Your task to perform on an android device: Show me the best 1080p monitor on Target.com Image 0: 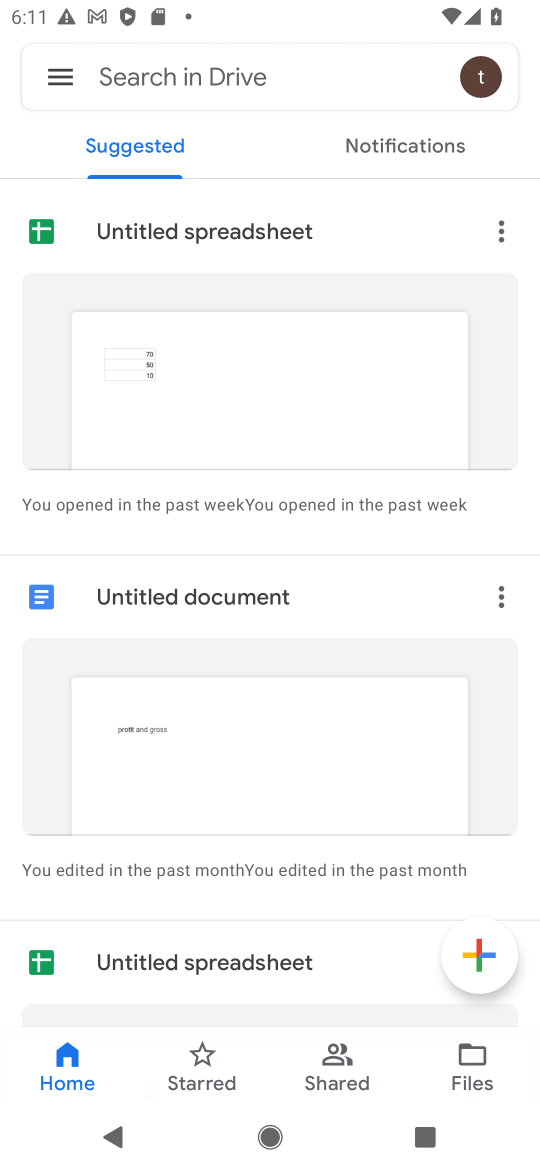
Step 0: press home button
Your task to perform on an android device: Show me the best 1080p monitor on Target.com Image 1: 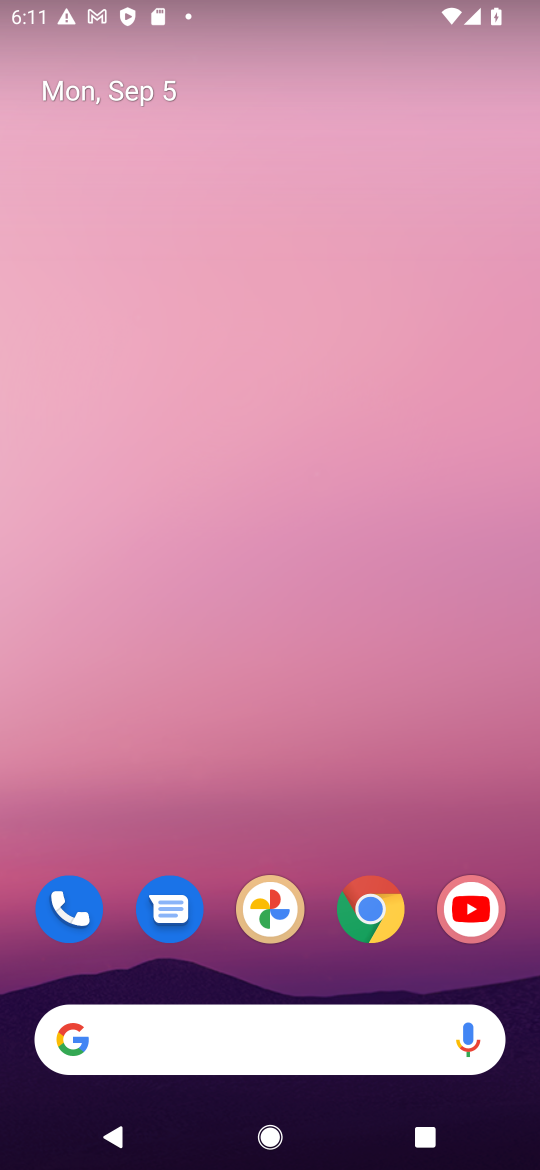
Step 1: drag from (313, 945) to (341, 125)
Your task to perform on an android device: Show me the best 1080p monitor on Target.com Image 2: 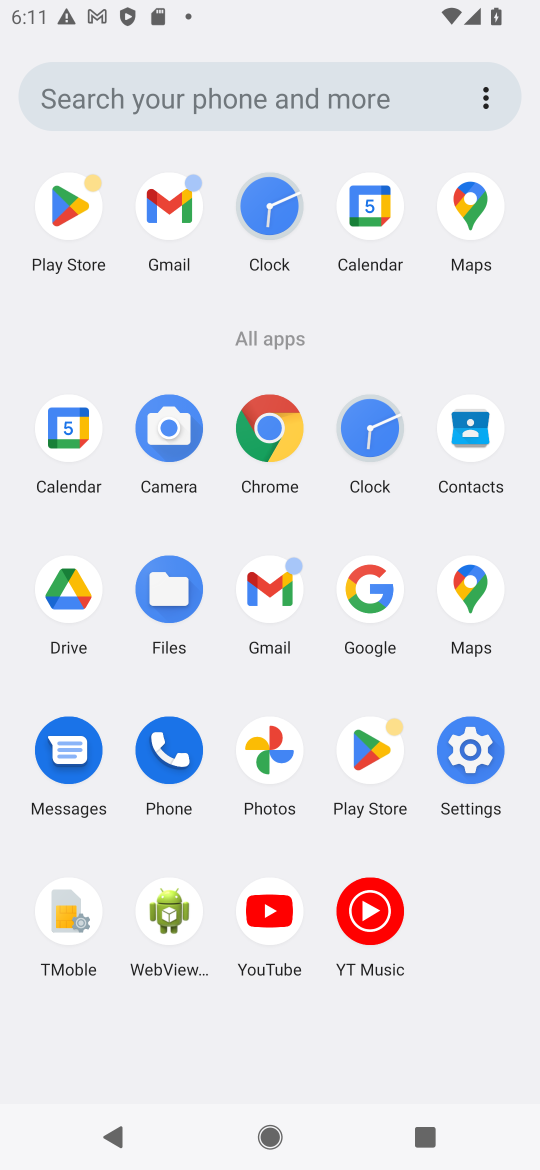
Step 2: click (366, 587)
Your task to perform on an android device: Show me the best 1080p monitor on Target.com Image 3: 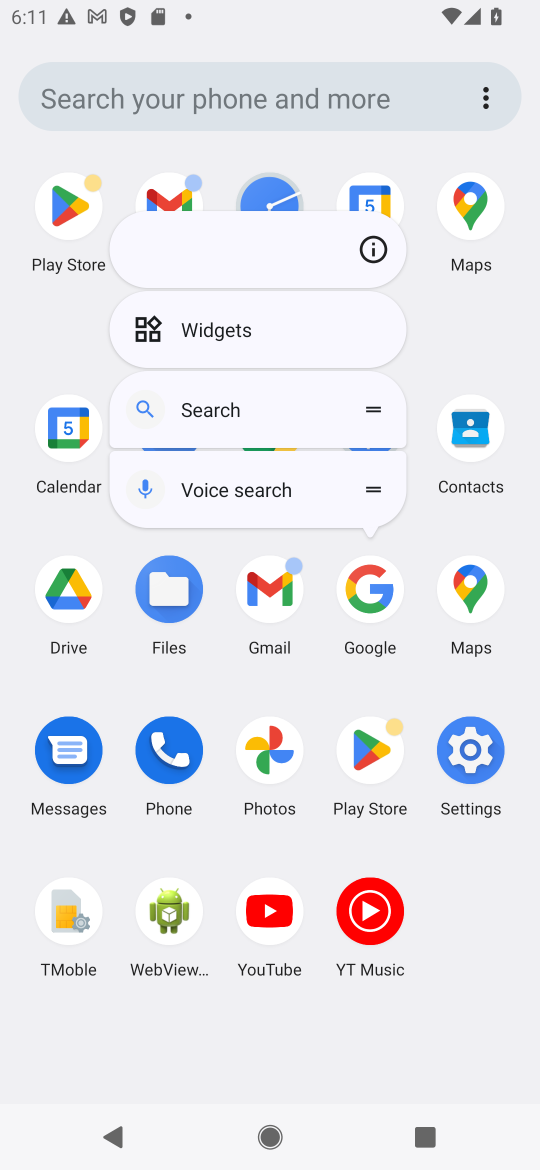
Step 3: click (376, 600)
Your task to perform on an android device: Show me the best 1080p monitor on Target.com Image 4: 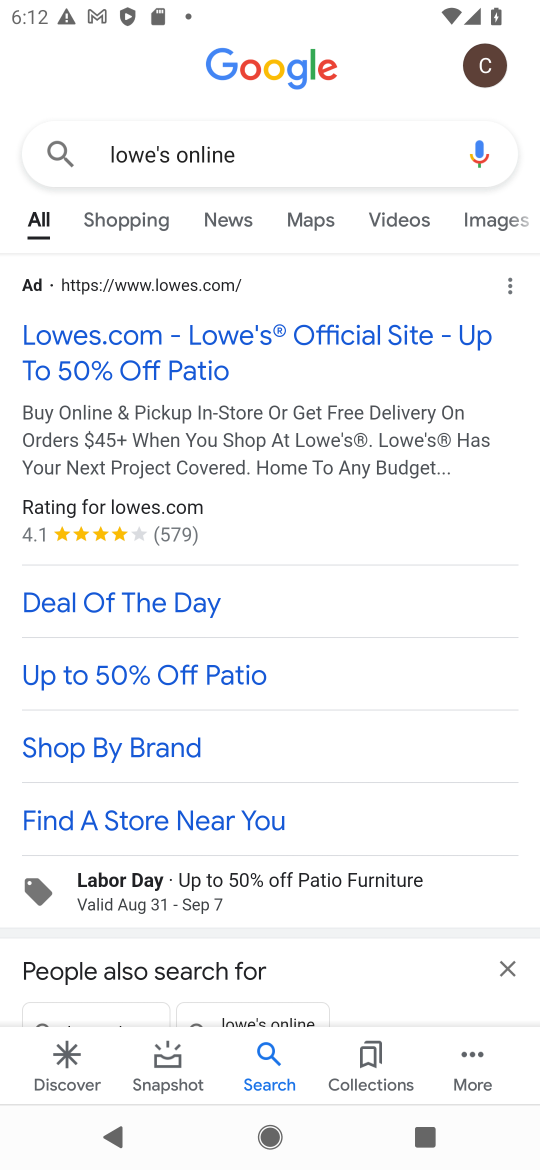
Step 4: click (227, 156)
Your task to perform on an android device: Show me the best 1080p monitor on Target.com Image 5: 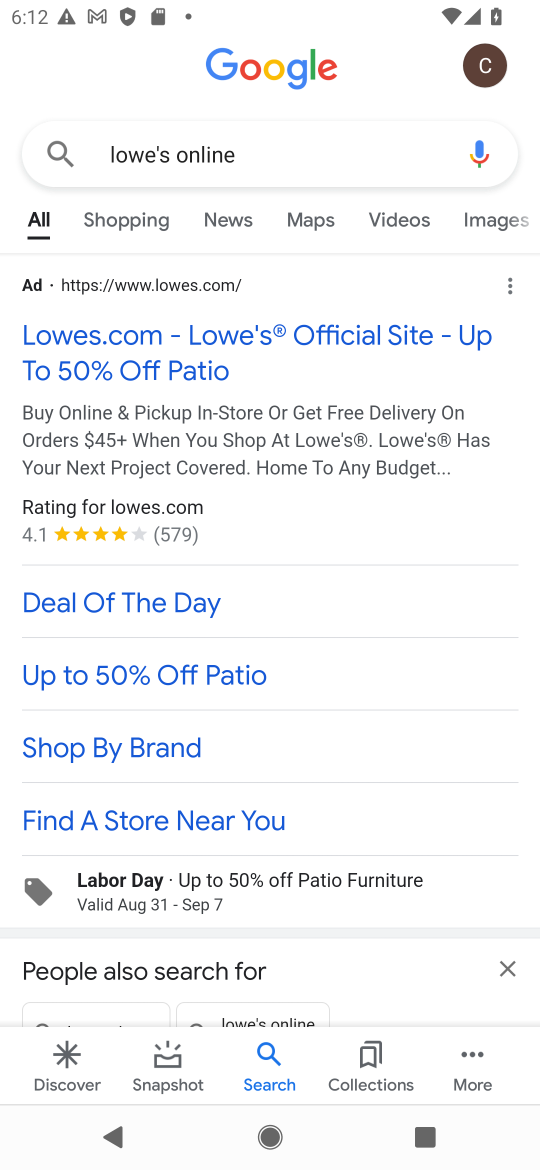
Step 5: click (193, 155)
Your task to perform on an android device: Show me the best 1080p monitor on Target.com Image 6: 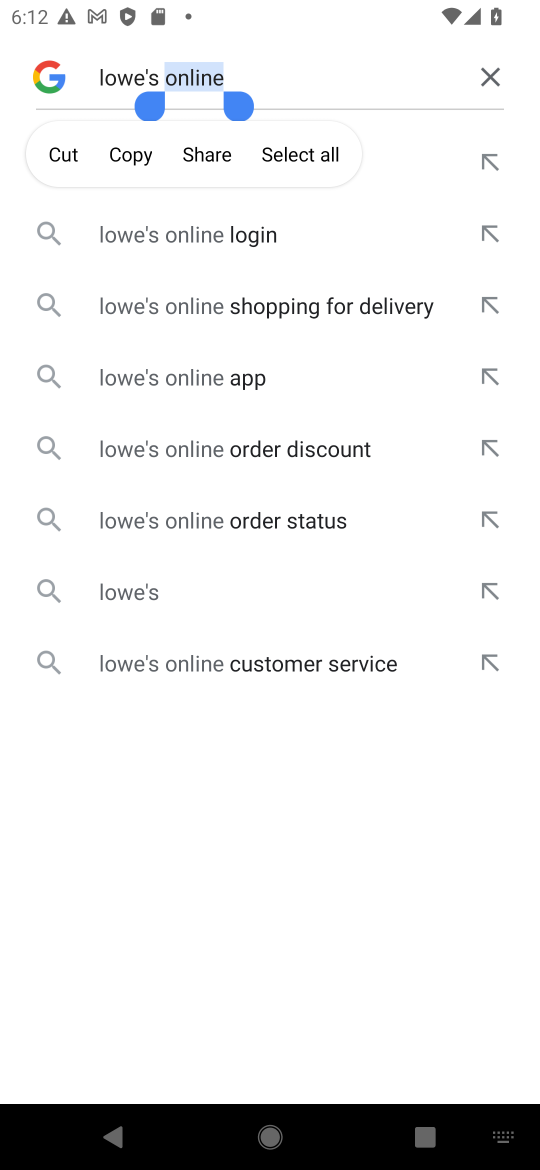
Step 6: click (130, 152)
Your task to perform on an android device: Show me the best 1080p monitor on Target.com Image 7: 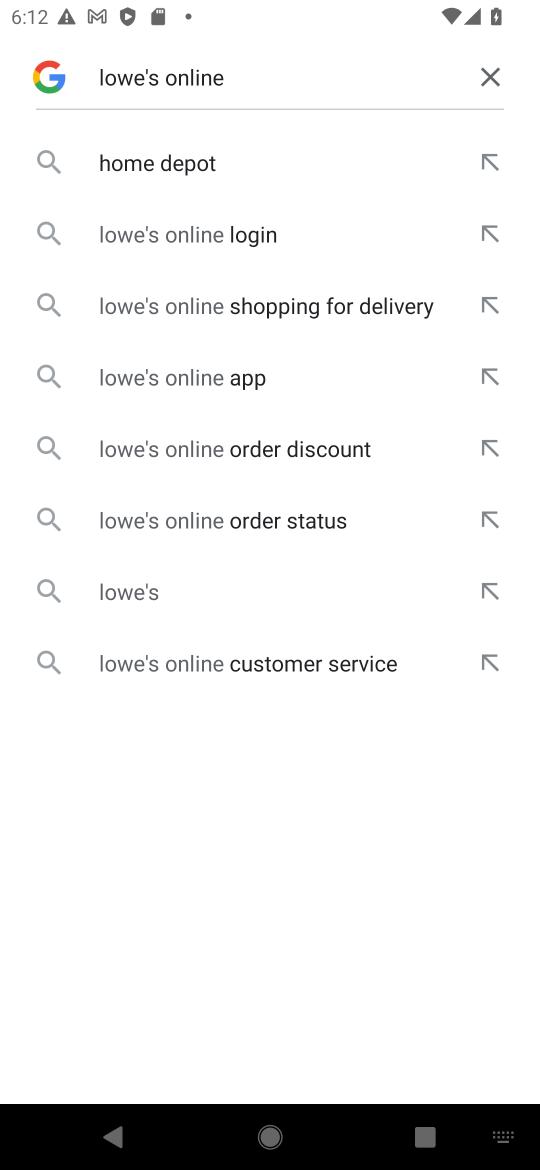
Step 7: type "Target.com"
Your task to perform on an android device: Show me the best 1080p monitor on Target.com Image 8: 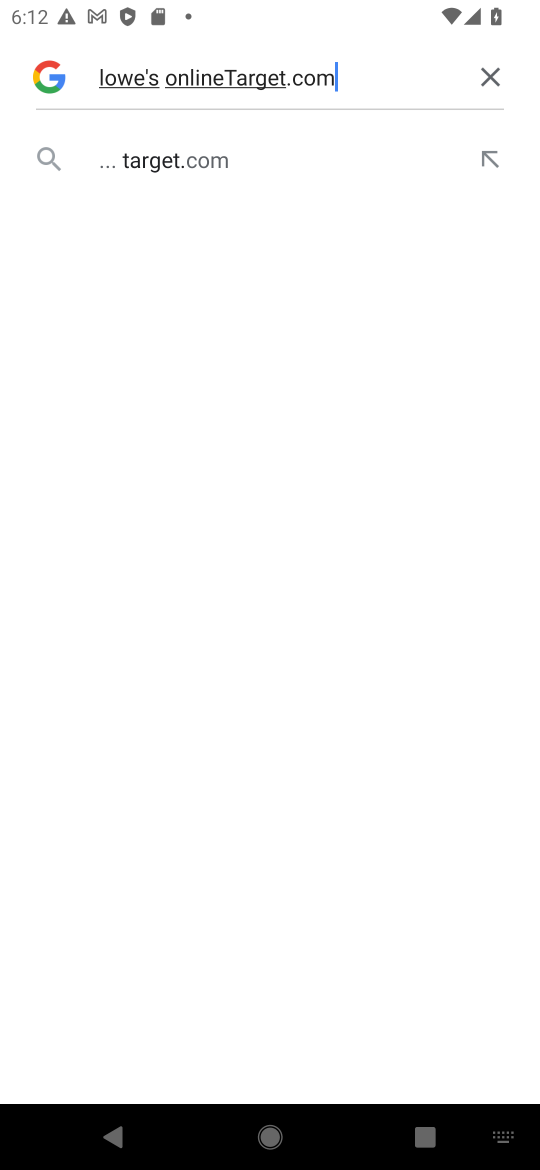
Step 8: click (153, 169)
Your task to perform on an android device: Show me the best 1080p monitor on Target.com Image 9: 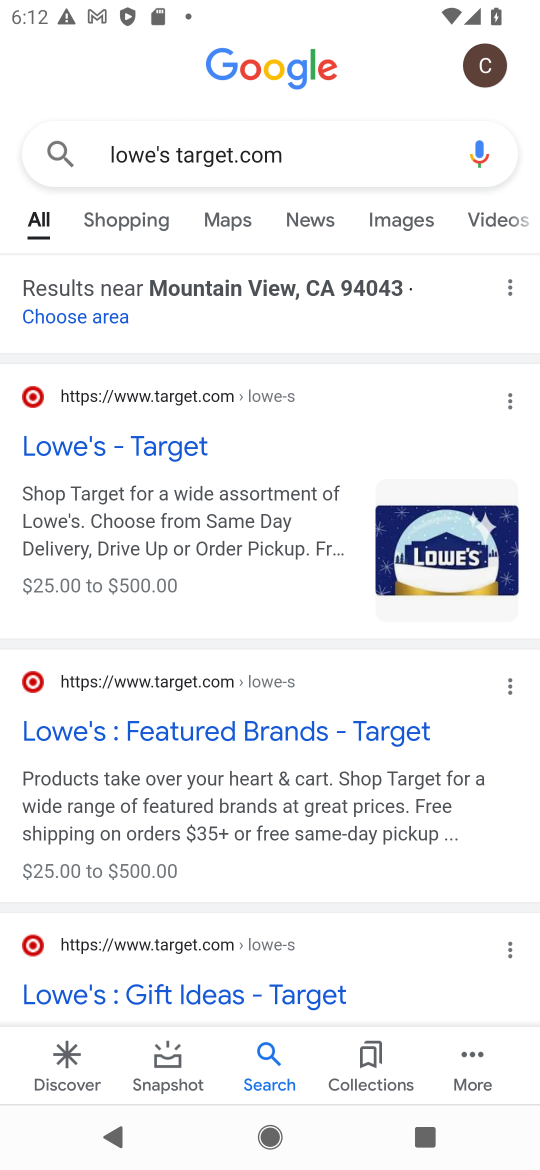
Step 9: click (320, 161)
Your task to perform on an android device: Show me the best 1080p monitor on Target.com Image 10: 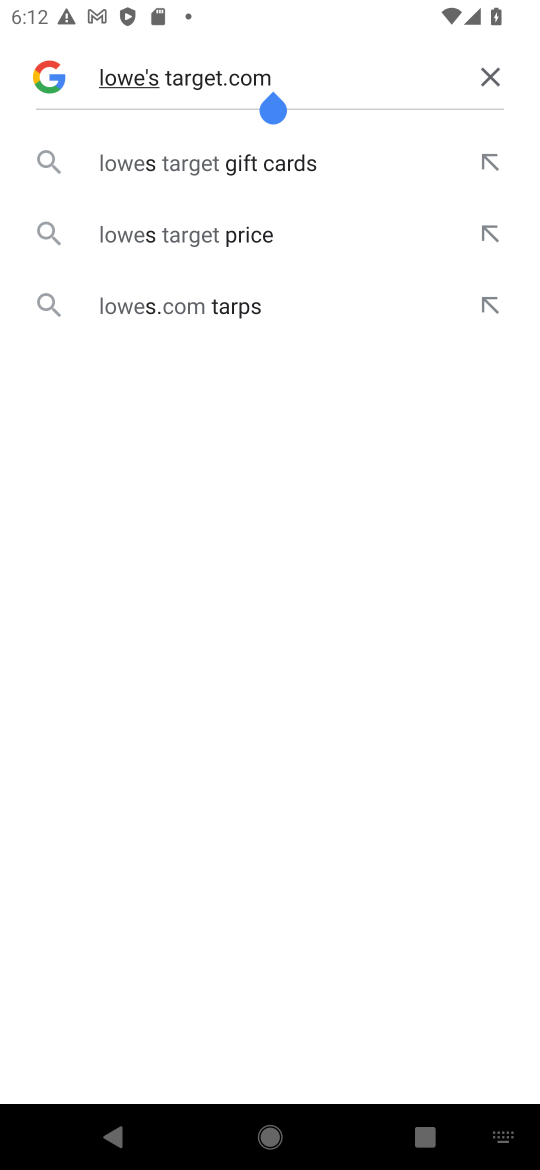
Step 10: click (486, 81)
Your task to perform on an android device: Show me the best 1080p monitor on Target.com Image 11: 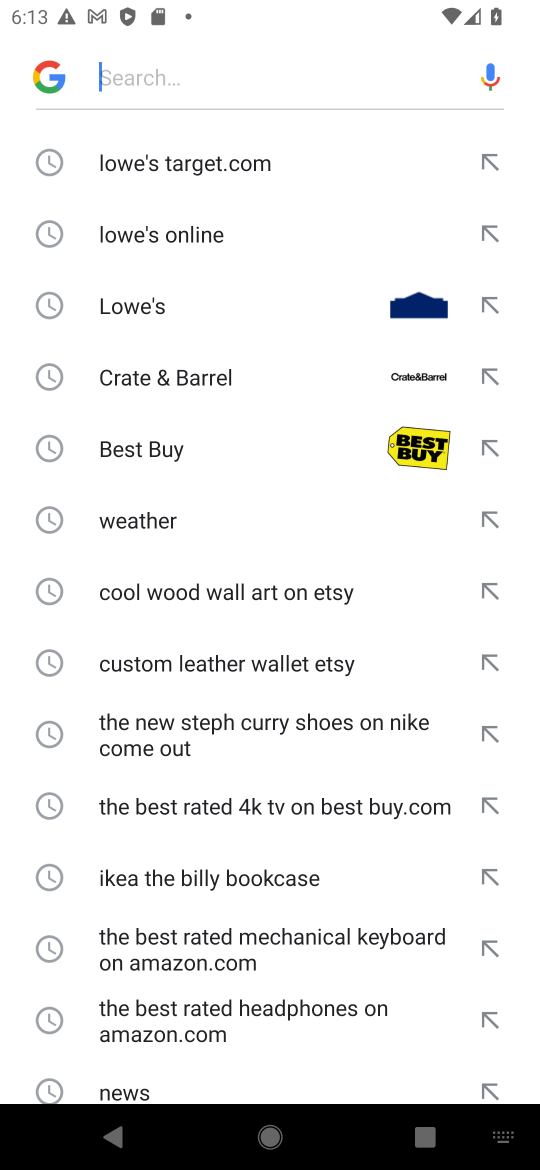
Step 11: type "Target.com"
Your task to perform on an android device: Show me the best 1080p monitor on Target.com Image 12: 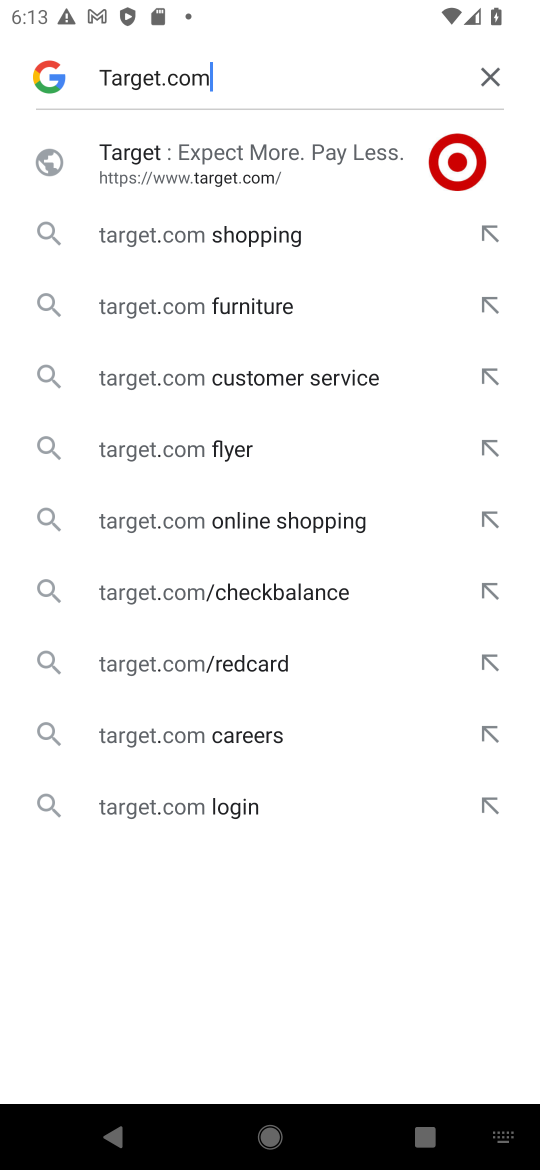
Step 12: click (204, 165)
Your task to perform on an android device: Show me the best 1080p monitor on Target.com Image 13: 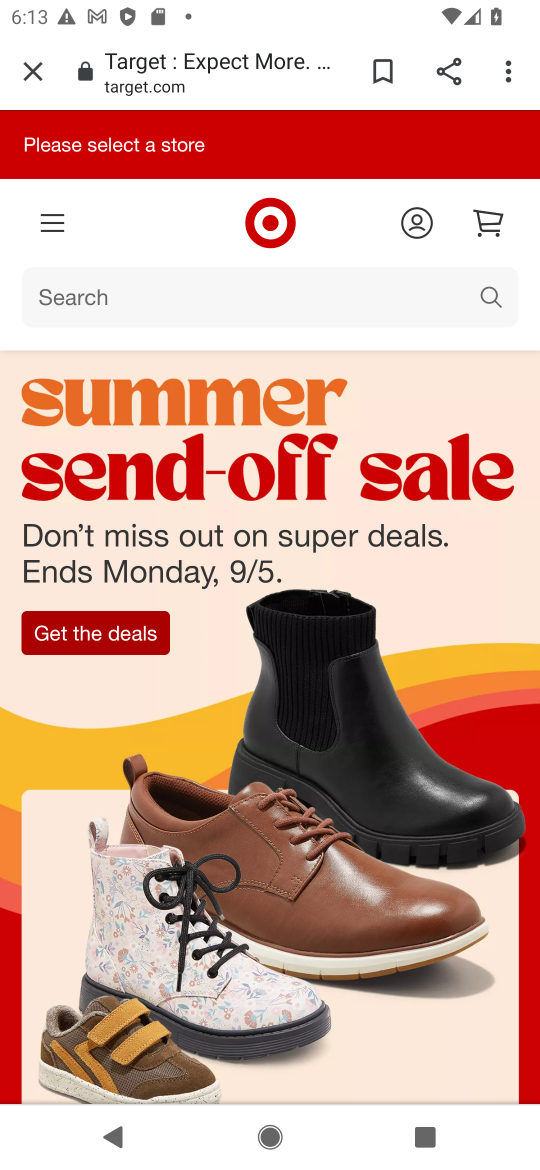
Step 13: click (482, 301)
Your task to perform on an android device: Show me the best 1080p monitor on Target.com Image 14: 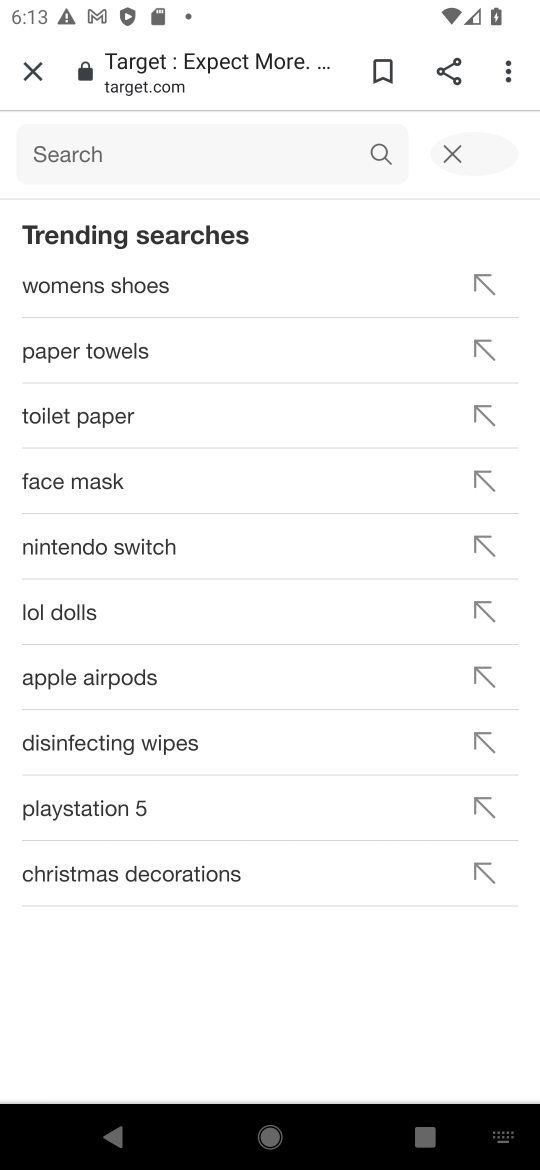
Step 14: type "best 1080p monitor"
Your task to perform on an android device: Show me the best 1080p monitor on Target.com Image 15: 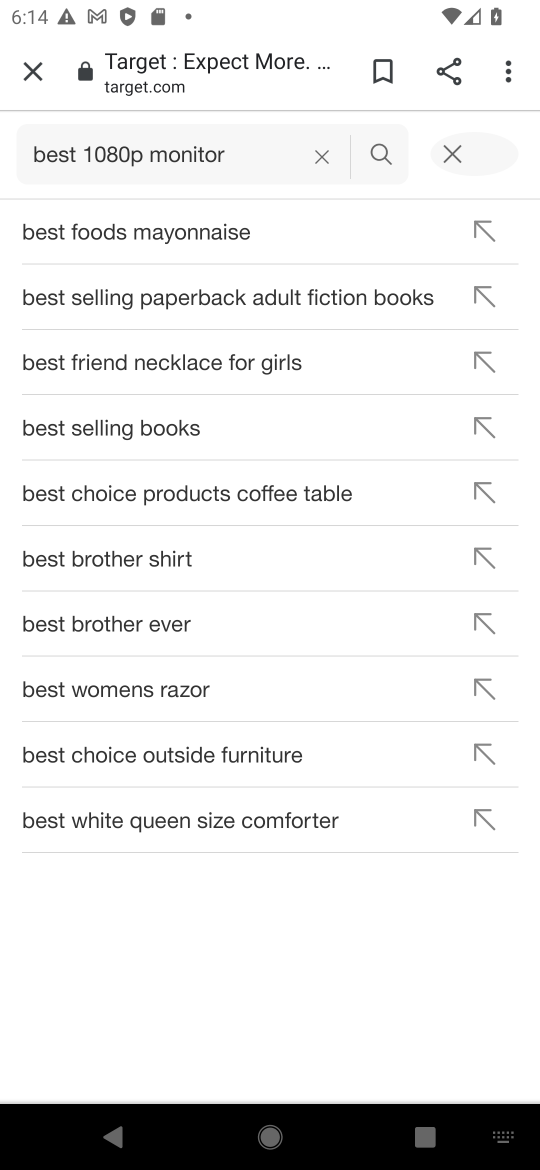
Step 15: click (113, 234)
Your task to perform on an android device: Show me the best 1080p monitor on Target.com Image 16: 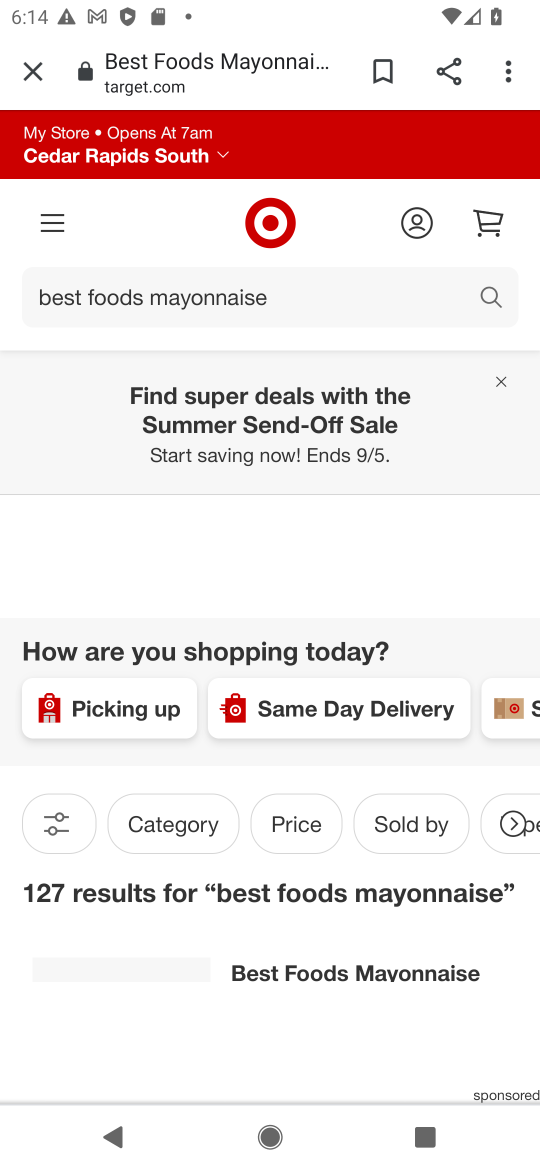
Step 16: task complete